Your task to perform on an android device: Go to battery settings Image 0: 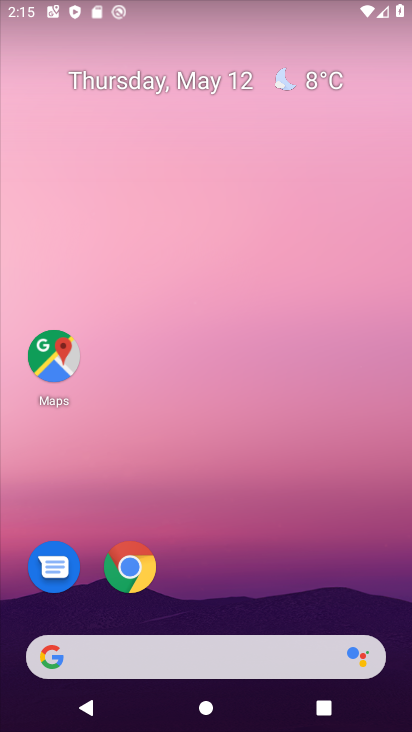
Step 0: drag from (223, 606) to (229, 19)
Your task to perform on an android device: Go to battery settings Image 1: 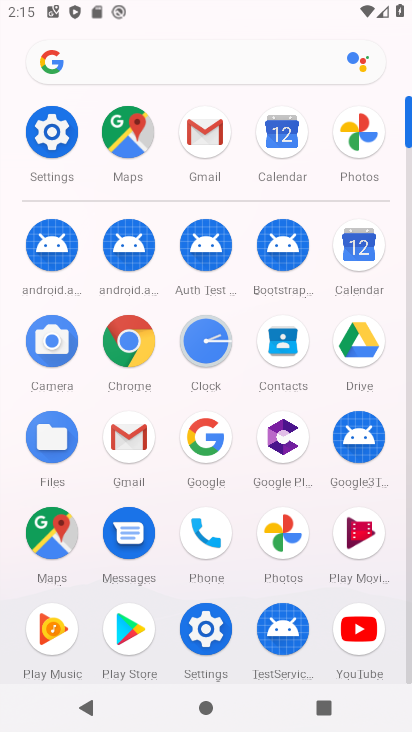
Step 1: click (53, 131)
Your task to perform on an android device: Go to battery settings Image 2: 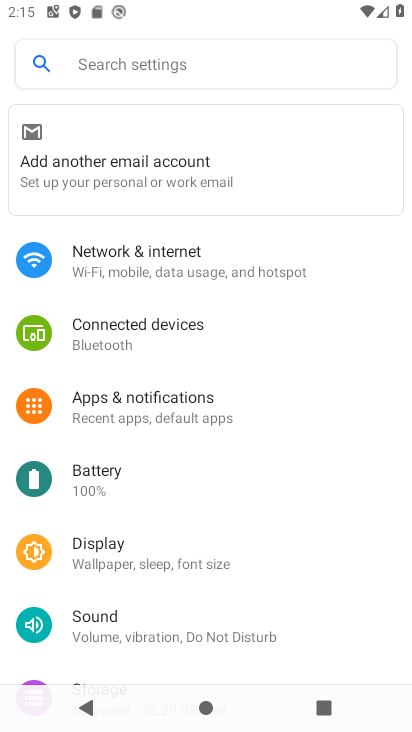
Step 2: click (122, 478)
Your task to perform on an android device: Go to battery settings Image 3: 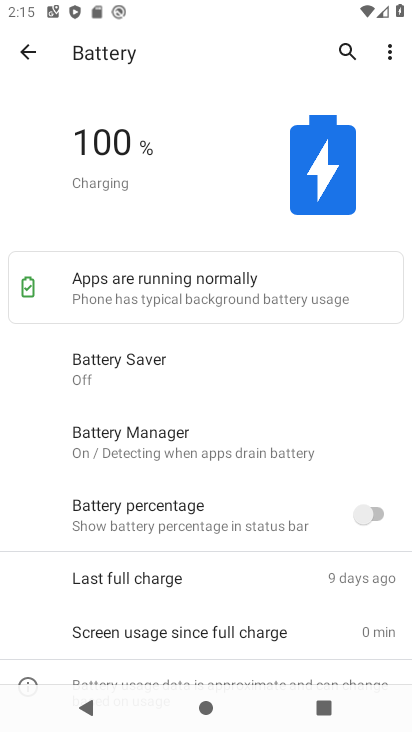
Step 3: task complete